Your task to perform on an android device: uninstall "Walmart Shopping & Grocery" Image 0: 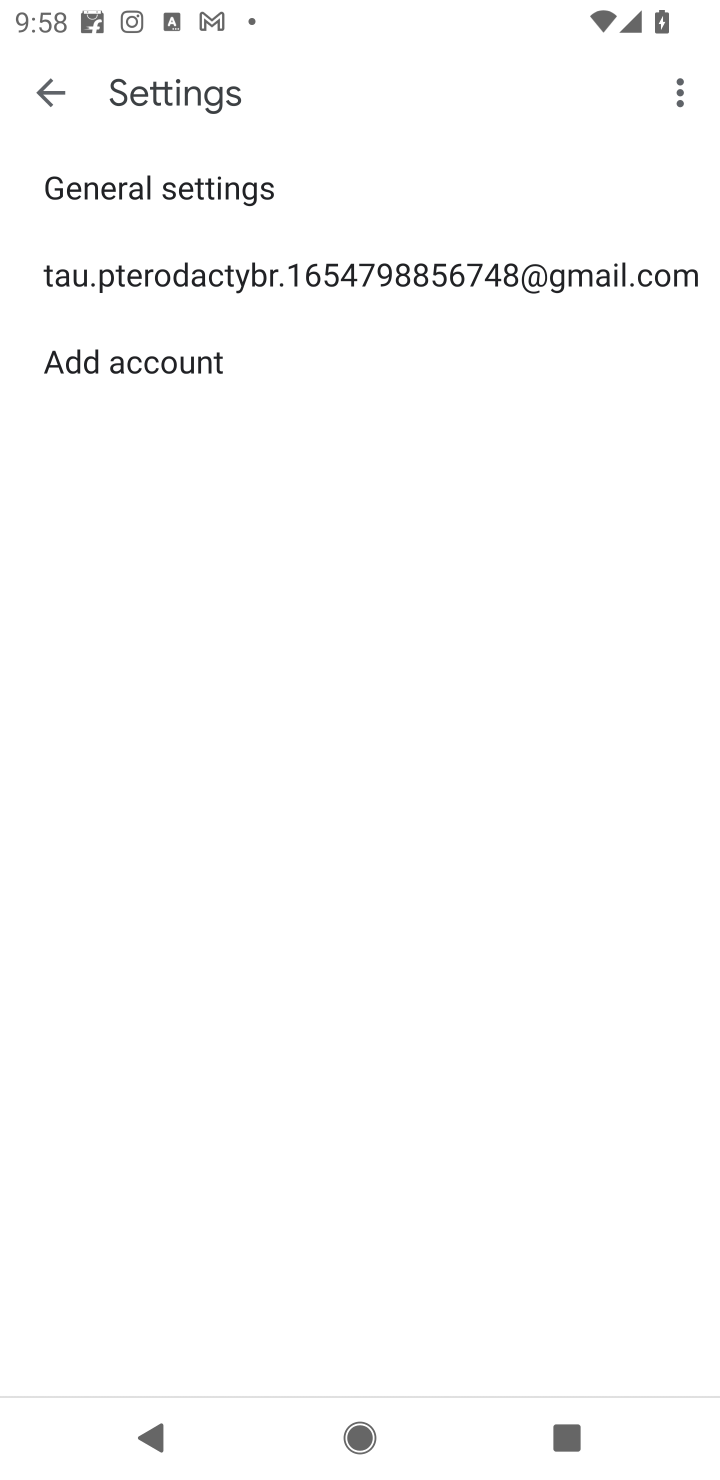
Step 0: press home button
Your task to perform on an android device: uninstall "Walmart Shopping & Grocery" Image 1: 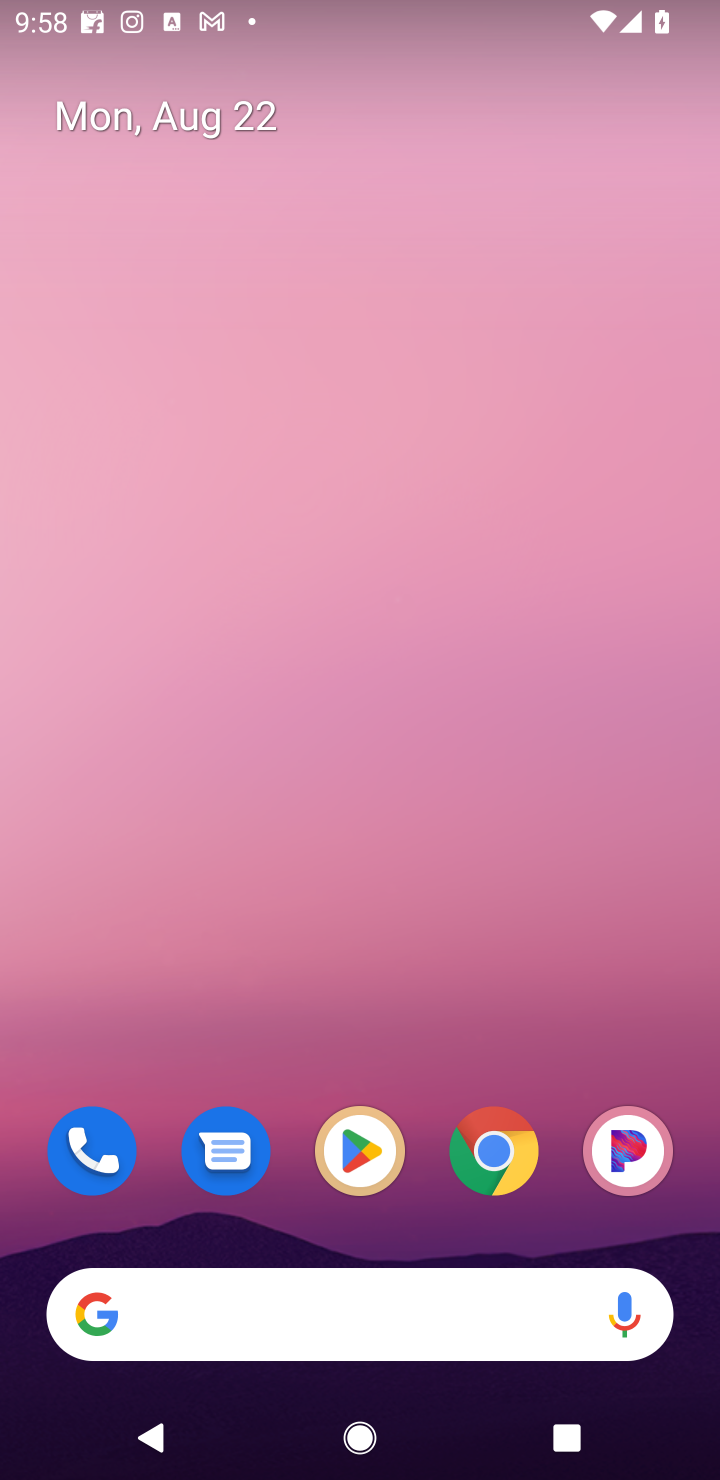
Step 1: click (341, 1147)
Your task to perform on an android device: uninstall "Walmart Shopping & Grocery" Image 2: 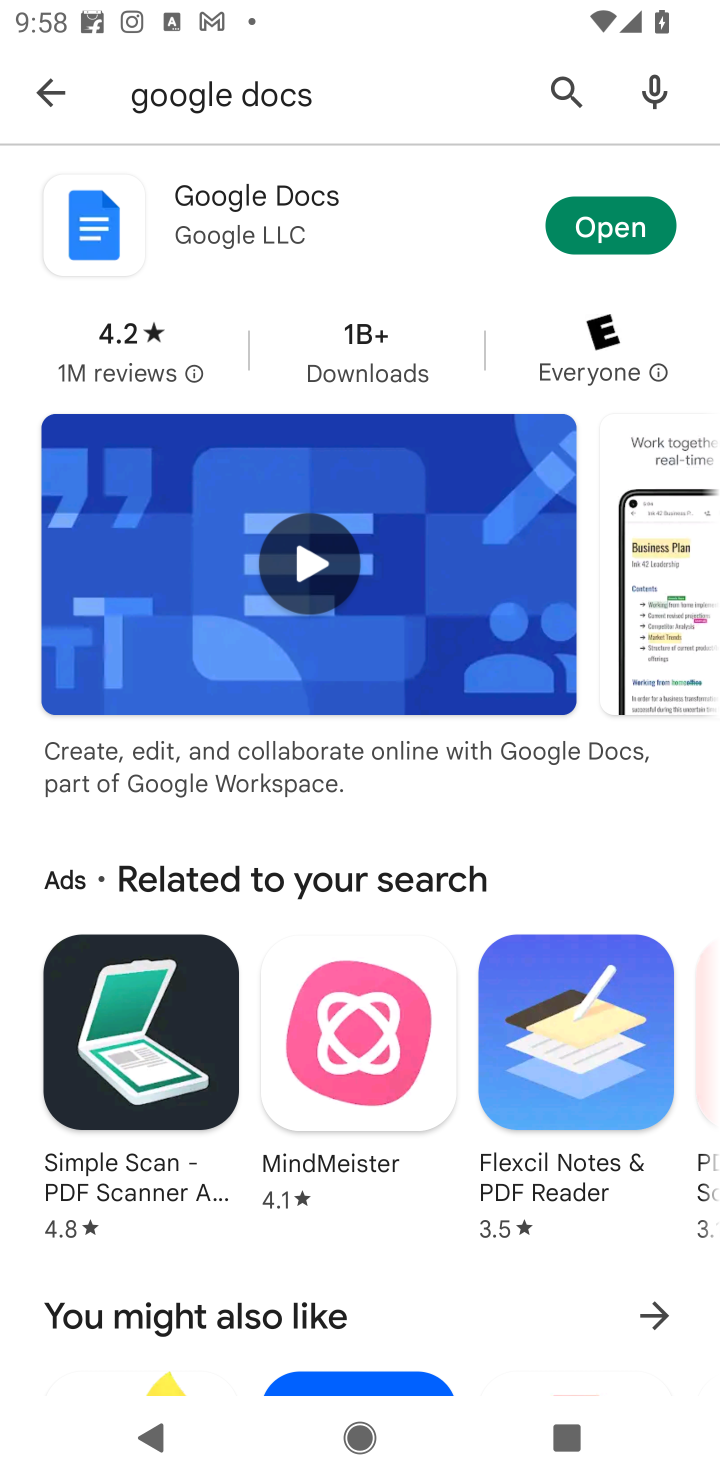
Step 2: click (556, 94)
Your task to perform on an android device: uninstall "Walmart Shopping & Grocery" Image 3: 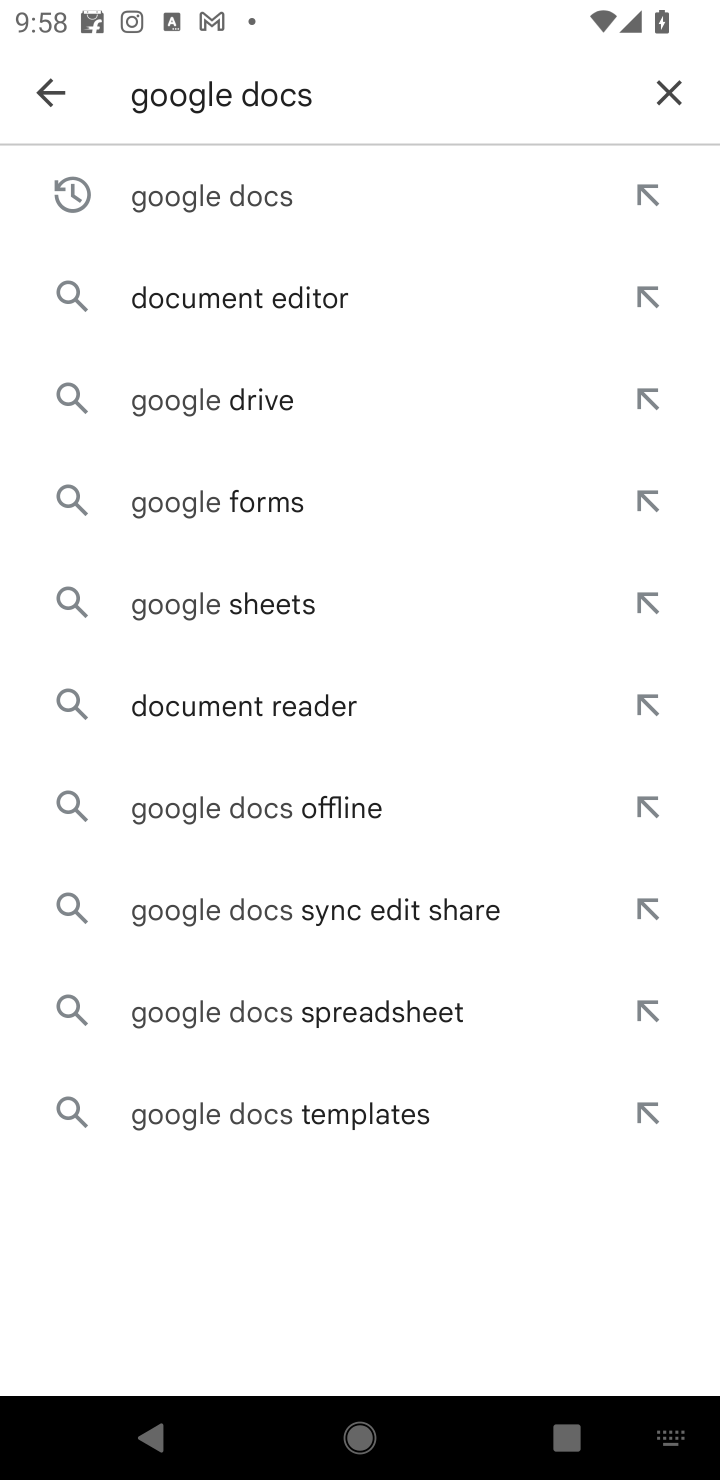
Step 3: click (660, 86)
Your task to perform on an android device: uninstall "Walmart Shopping & Grocery" Image 4: 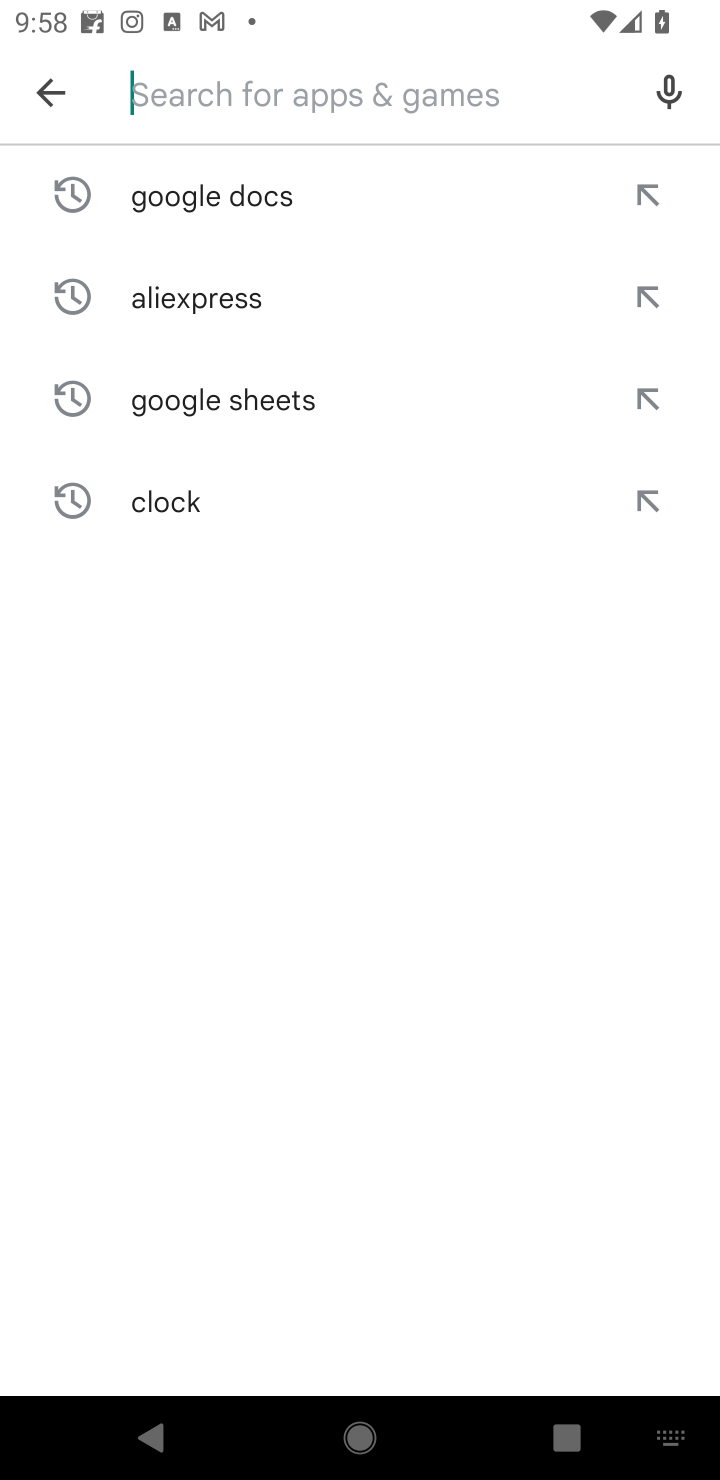
Step 4: type "Walmart Shopping & Grocery"
Your task to perform on an android device: uninstall "Walmart Shopping & Grocery" Image 5: 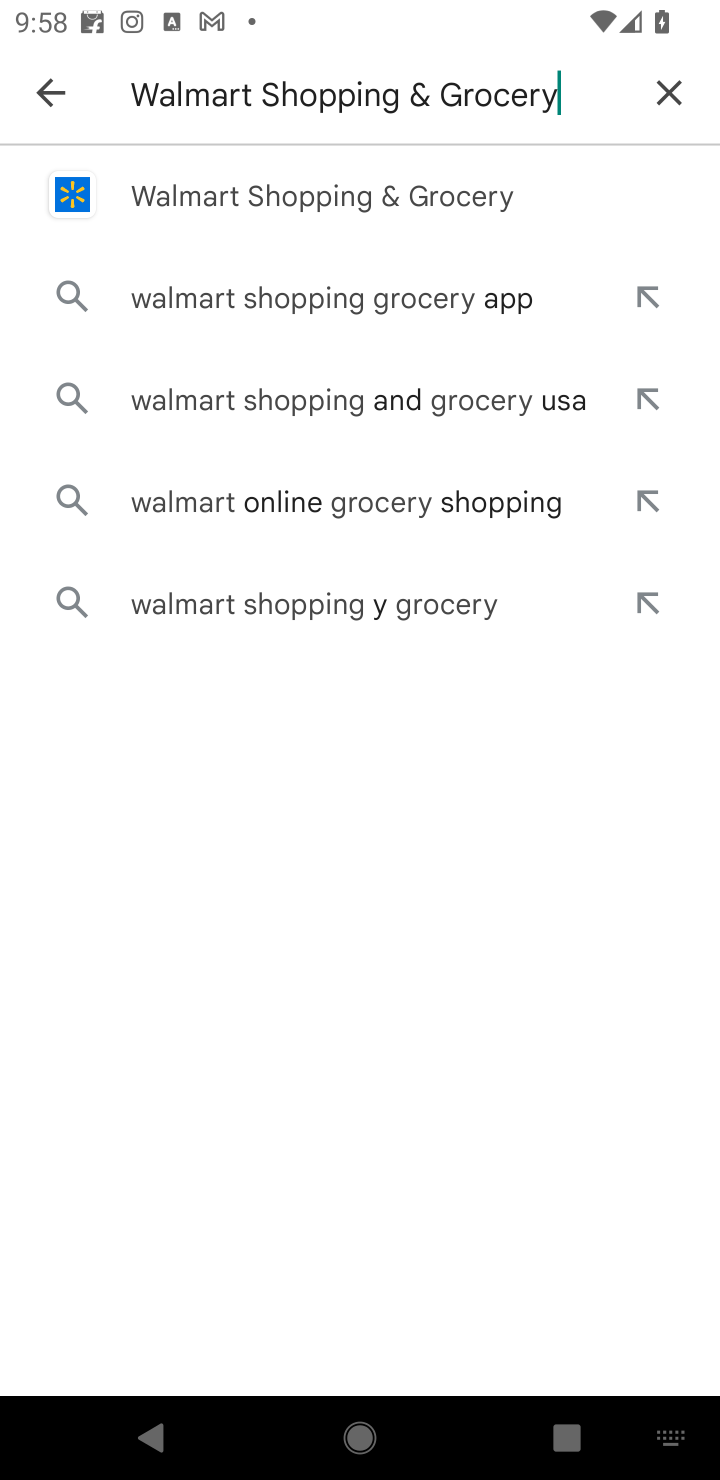
Step 5: click (257, 196)
Your task to perform on an android device: uninstall "Walmart Shopping & Grocery" Image 6: 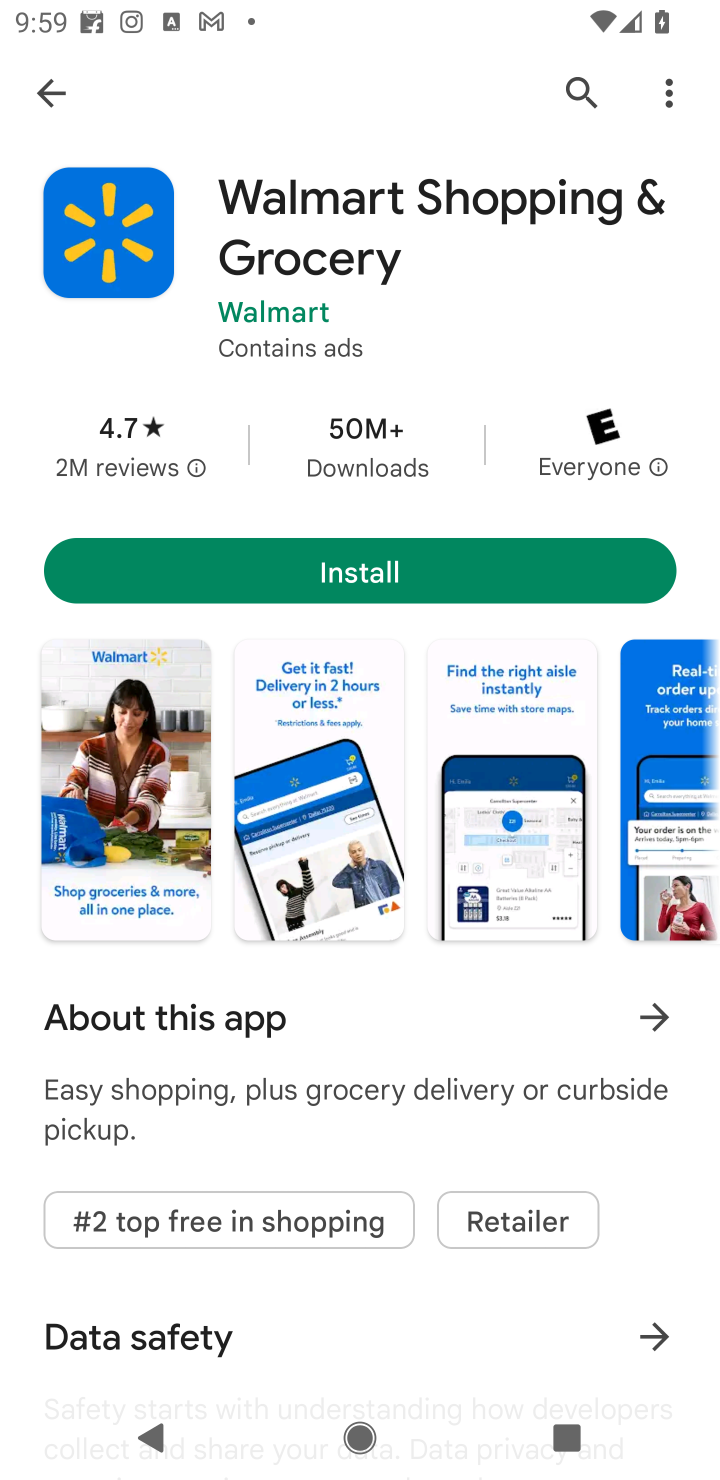
Step 6: task complete